Your task to perform on an android device: turn on translation in the chrome app Image 0: 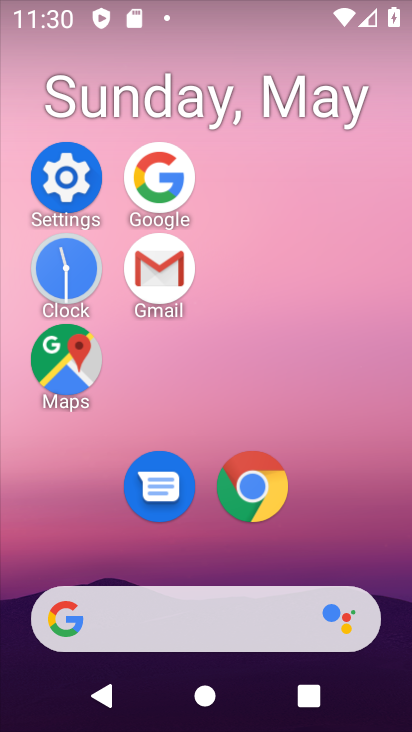
Step 0: click (255, 520)
Your task to perform on an android device: turn on translation in the chrome app Image 1: 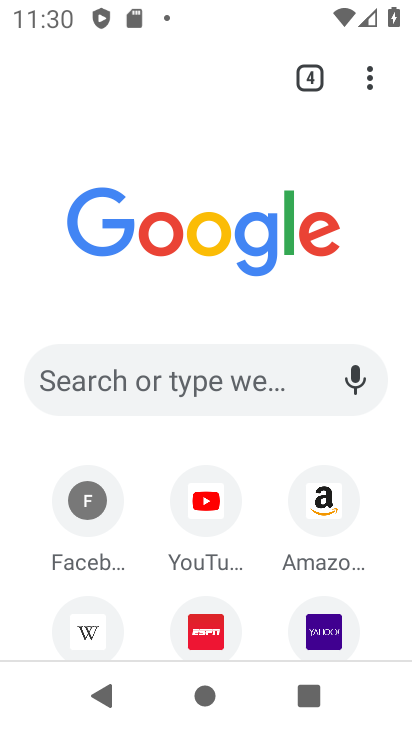
Step 1: click (377, 83)
Your task to perform on an android device: turn on translation in the chrome app Image 2: 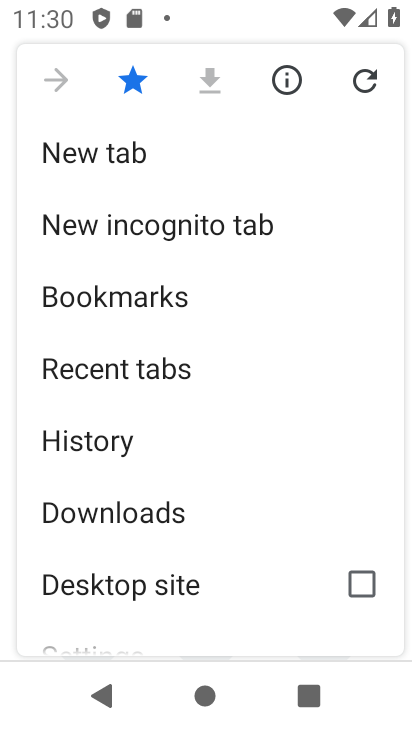
Step 2: drag from (235, 487) to (255, 195)
Your task to perform on an android device: turn on translation in the chrome app Image 3: 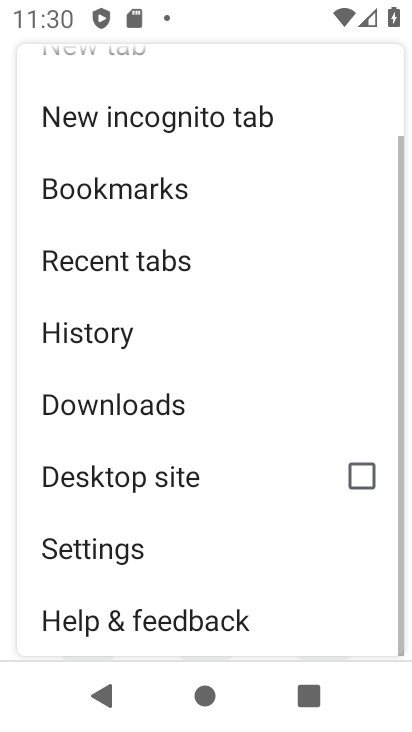
Step 3: click (131, 546)
Your task to perform on an android device: turn on translation in the chrome app Image 4: 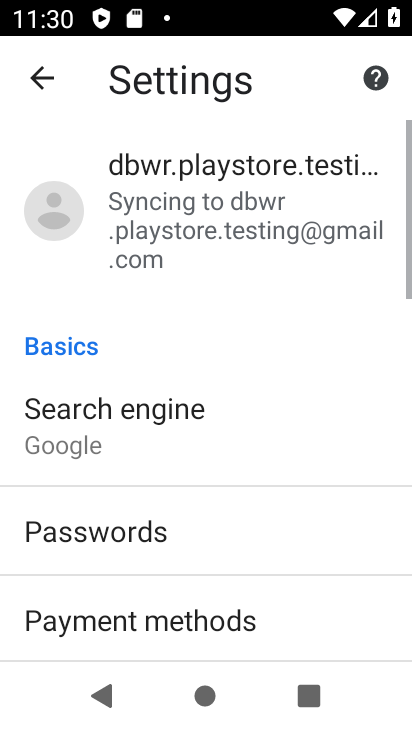
Step 4: drag from (131, 546) to (169, 241)
Your task to perform on an android device: turn on translation in the chrome app Image 5: 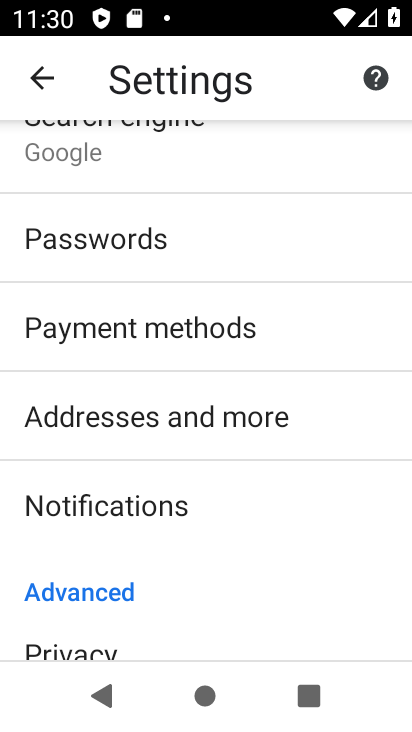
Step 5: drag from (195, 600) to (230, 255)
Your task to perform on an android device: turn on translation in the chrome app Image 6: 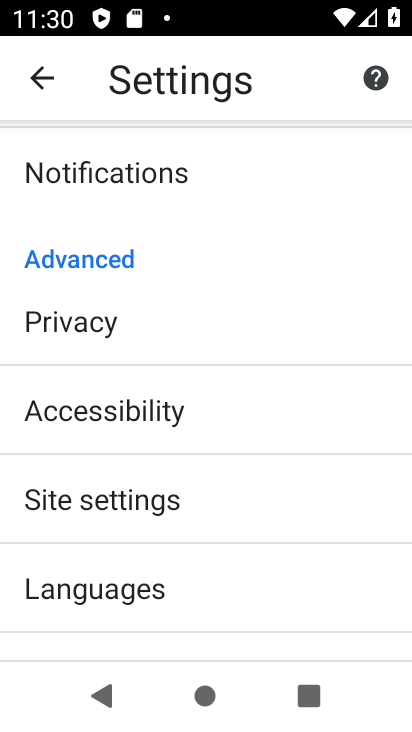
Step 6: click (172, 590)
Your task to perform on an android device: turn on translation in the chrome app Image 7: 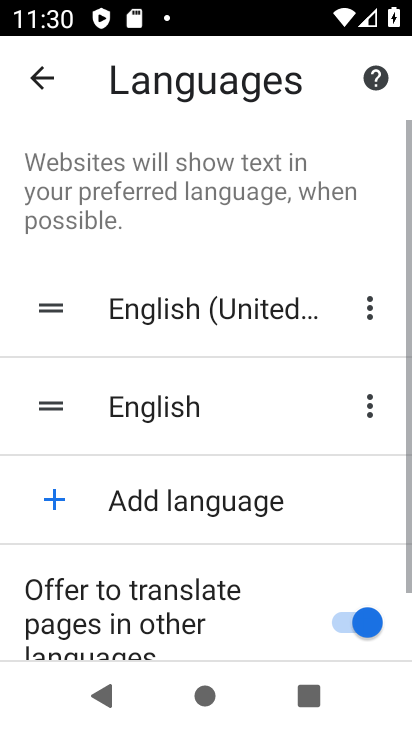
Step 7: click (172, 590)
Your task to perform on an android device: turn on translation in the chrome app Image 8: 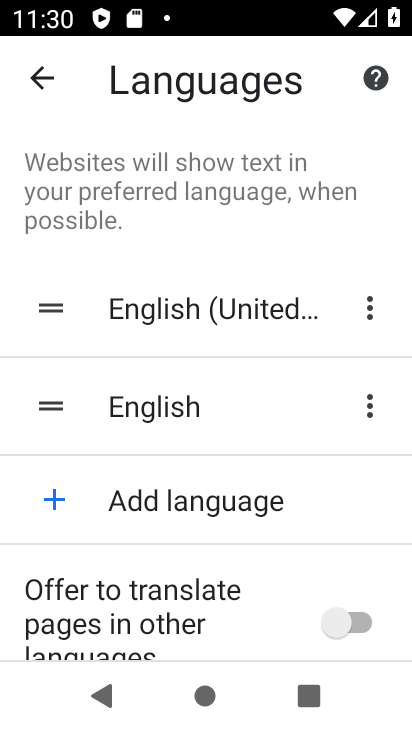
Step 8: click (317, 627)
Your task to perform on an android device: turn on translation in the chrome app Image 9: 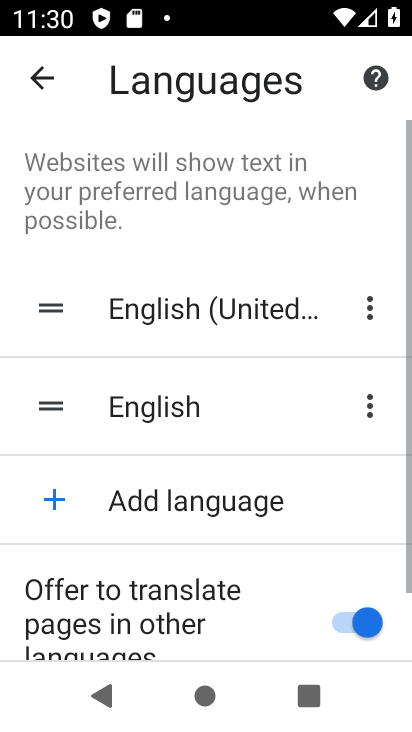
Step 9: task complete